Your task to perform on an android device: remove spam from my inbox in the gmail app Image 0: 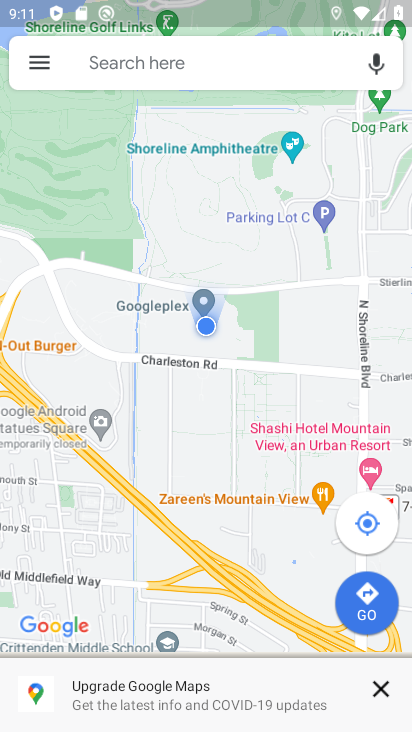
Step 0: press home button
Your task to perform on an android device: remove spam from my inbox in the gmail app Image 1: 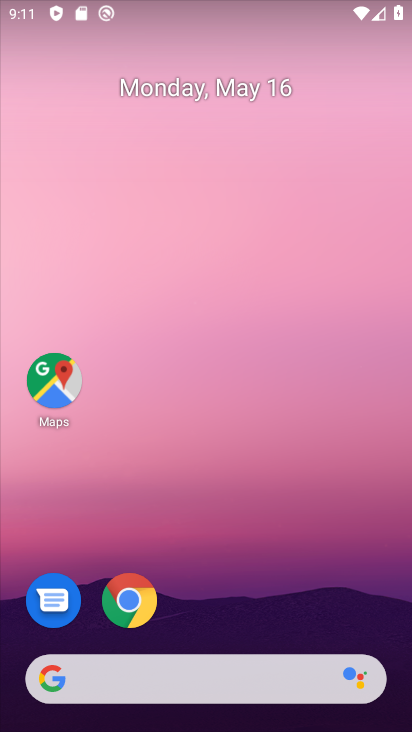
Step 1: drag from (188, 631) to (271, 120)
Your task to perform on an android device: remove spam from my inbox in the gmail app Image 2: 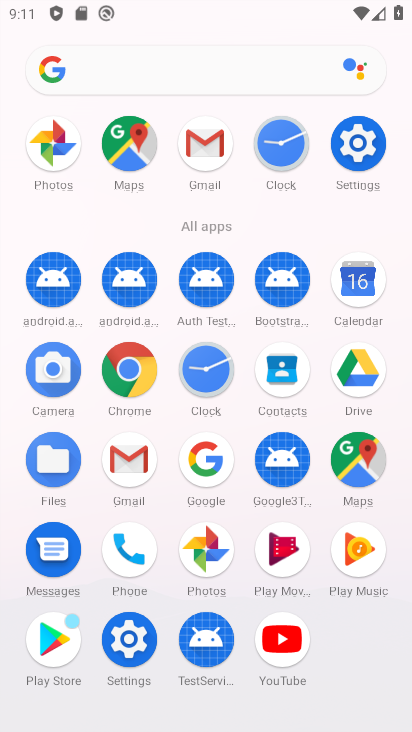
Step 2: click (141, 462)
Your task to perform on an android device: remove spam from my inbox in the gmail app Image 3: 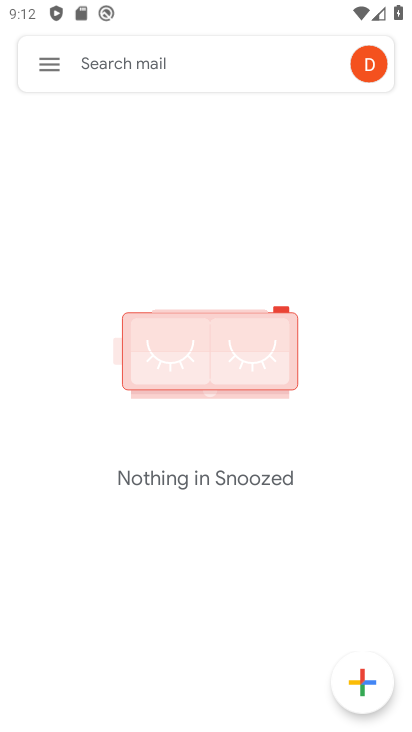
Step 3: click (51, 67)
Your task to perform on an android device: remove spam from my inbox in the gmail app Image 4: 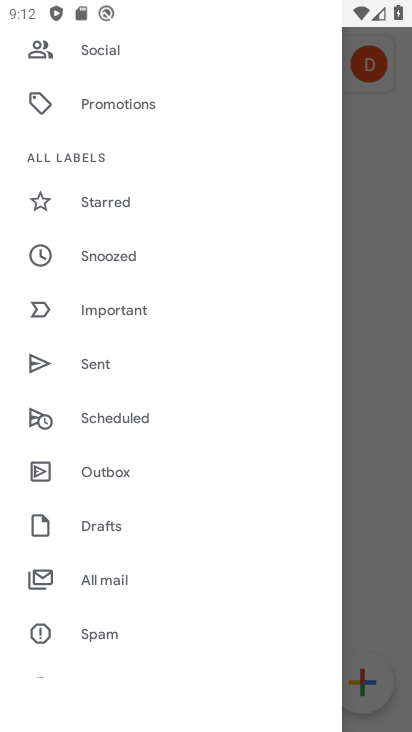
Step 4: drag from (173, 536) to (208, 391)
Your task to perform on an android device: remove spam from my inbox in the gmail app Image 5: 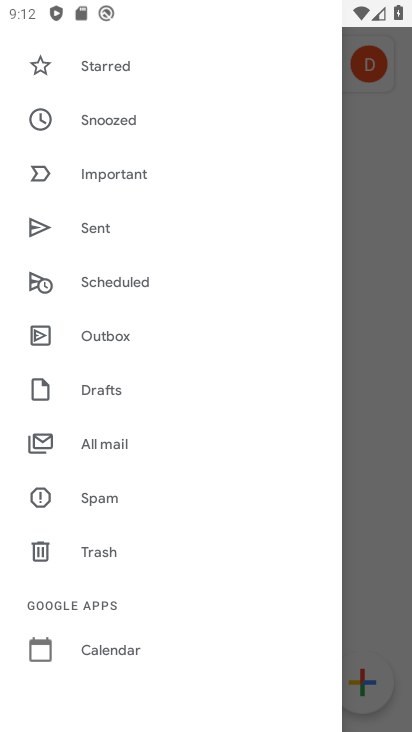
Step 5: click (137, 505)
Your task to perform on an android device: remove spam from my inbox in the gmail app Image 6: 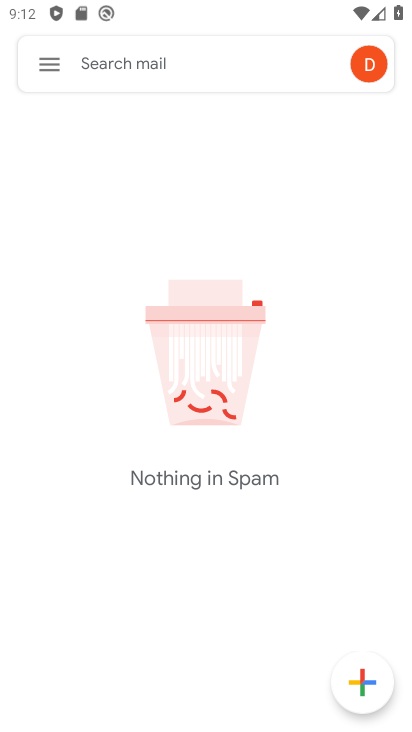
Step 6: task complete